Your task to perform on an android device: Open the web browser Image 0: 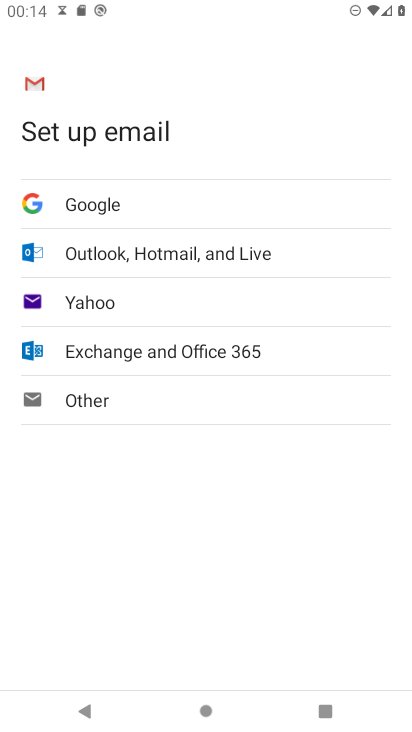
Step 0: press home button
Your task to perform on an android device: Open the web browser Image 1: 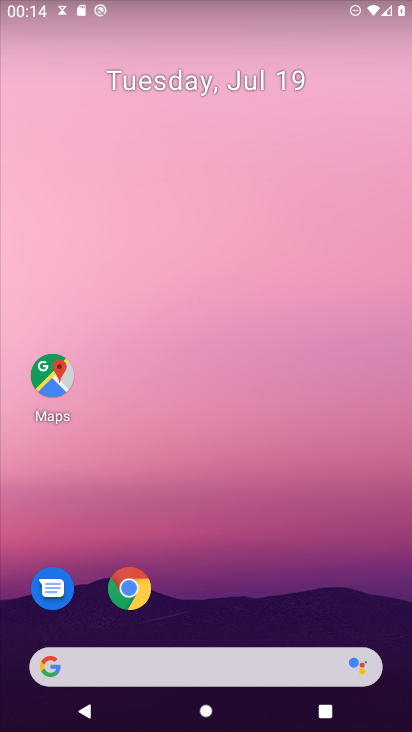
Step 1: click (44, 661)
Your task to perform on an android device: Open the web browser Image 2: 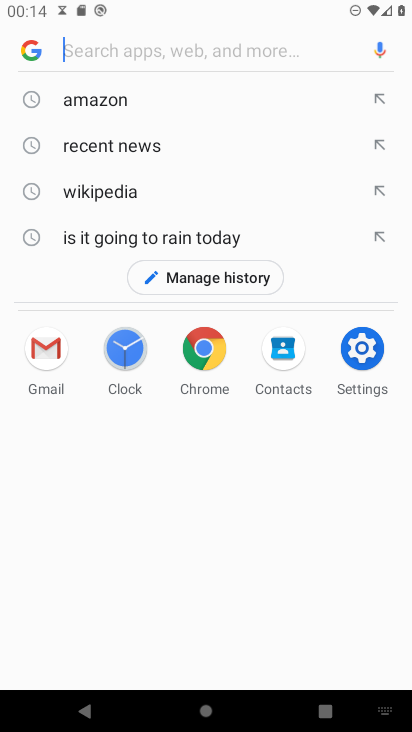
Step 2: click (207, 350)
Your task to perform on an android device: Open the web browser Image 3: 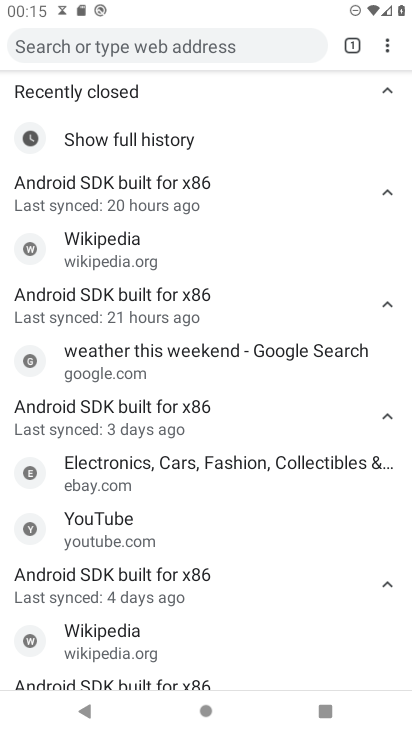
Step 3: click (201, 40)
Your task to perform on an android device: Open the web browser Image 4: 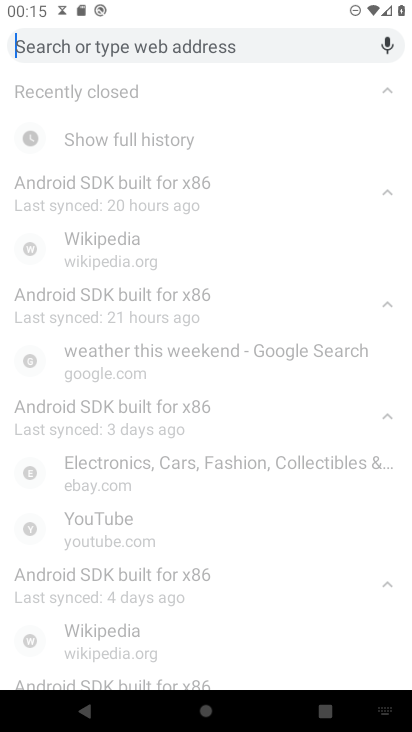
Step 4: task complete